Your task to perform on an android device: toggle wifi Image 0: 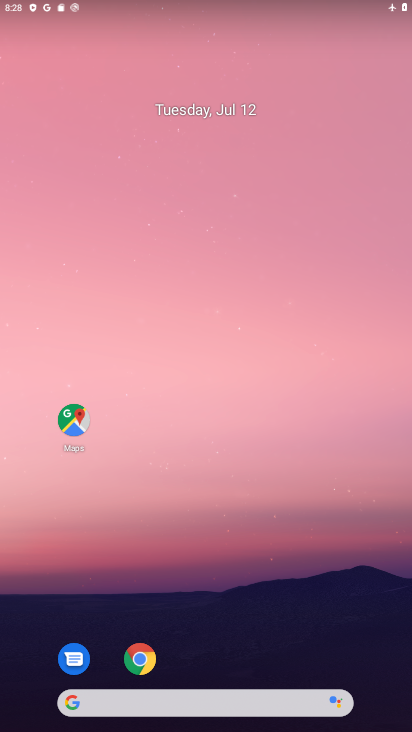
Step 0: drag from (252, 706) to (213, 355)
Your task to perform on an android device: toggle wifi Image 1: 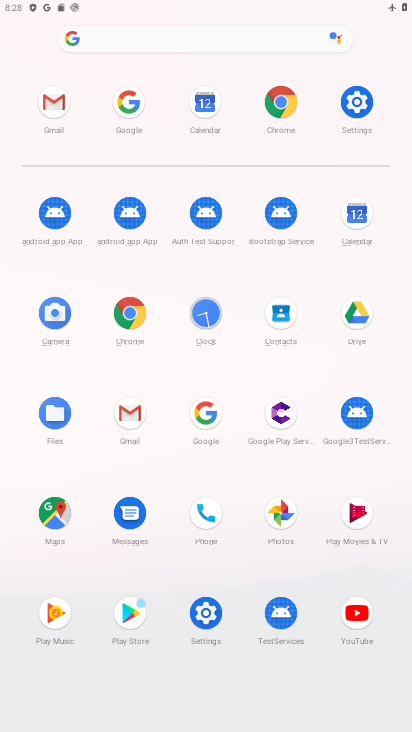
Step 1: click (213, 604)
Your task to perform on an android device: toggle wifi Image 2: 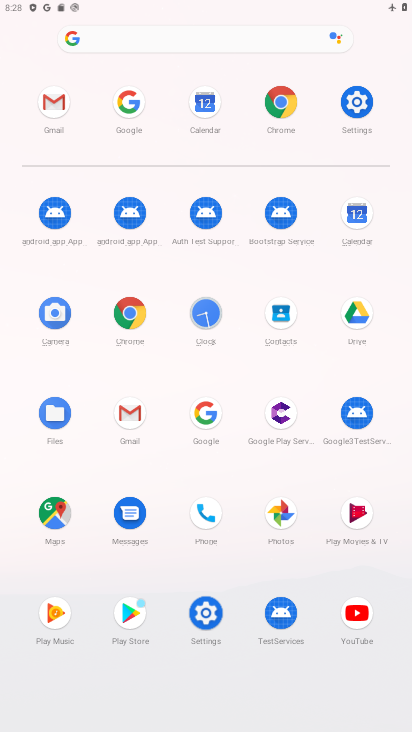
Step 2: click (215, 606)
Your task to perform on an android device: toggle wifi Image 3: 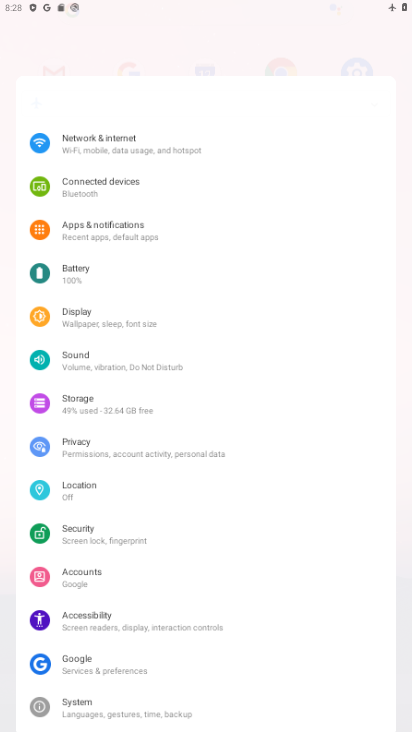
Step 3: click (218, 604)
Your task to perform on an android device: toggle wifi Image 4: 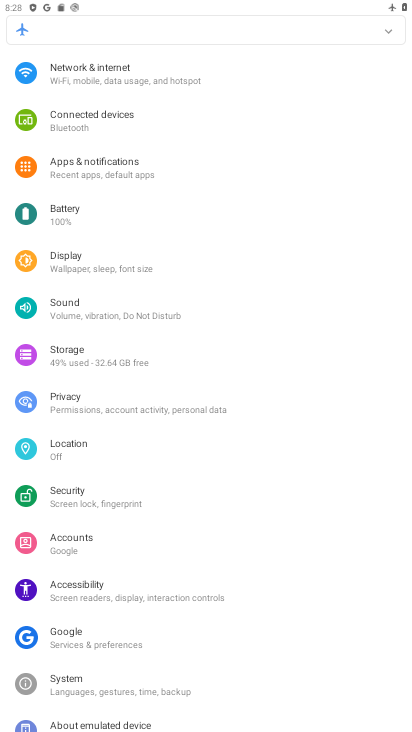
Step 4: click (218, 604)
Your task to perform on an android device: toggle wifi Image 5: 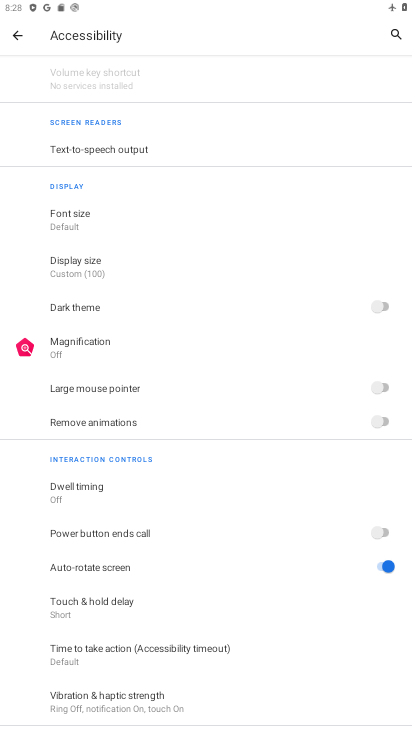
Step 5: click (18, 30)
Your task to perform on an android device: toggle wifi Image 6: 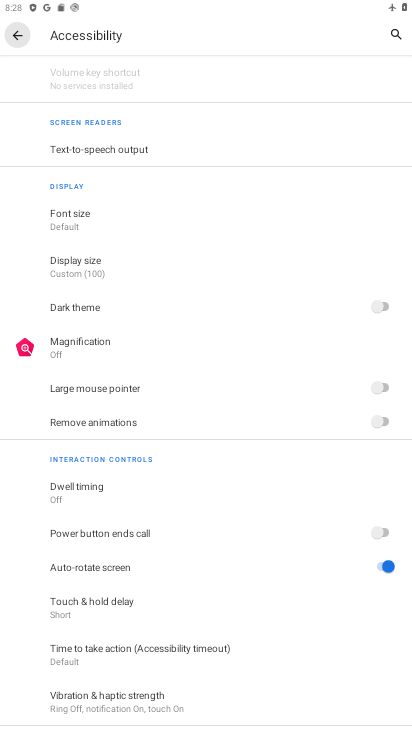
Step 6: click (18, 30)
Your task to perform on an android device: toggle wifi Image 7: 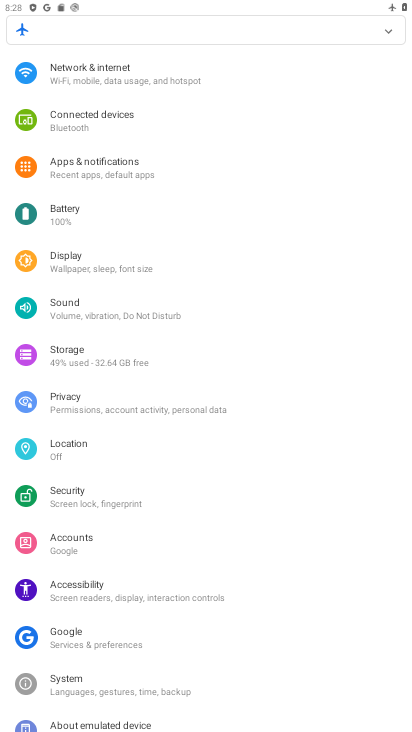
Step 7: click (114, 73)
Your task to perform on an android device: toggle wifi Image 8: 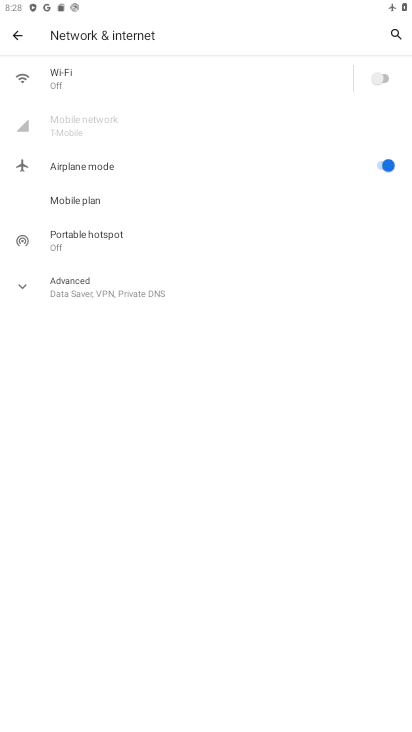
Step 8: click (378, 70)
Your task to perform on an android device: toggle wifi Image 9: 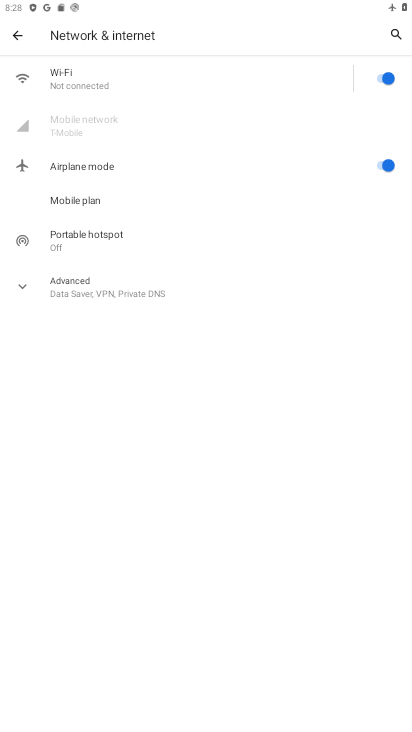
Step 9: task complete